Your task to perform on an android device: open app "Airtel Thanks" (install if not already installed) and go to login screen Image 0: 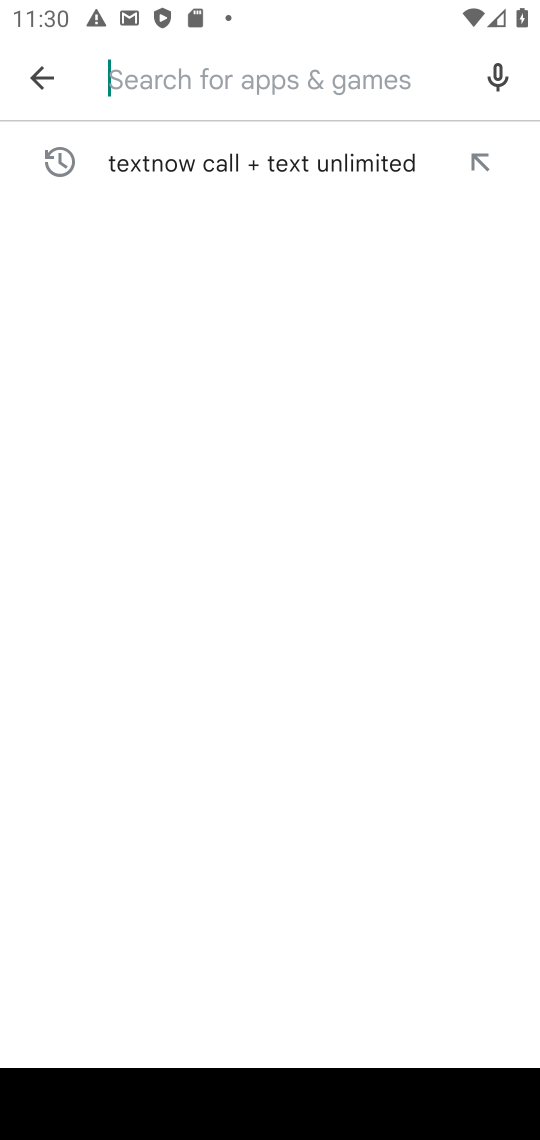
Step 0: type ""
Your task to perform on an android device: open app "Airtel Thanks" (install if not already installed) and go to login screen Image 1: 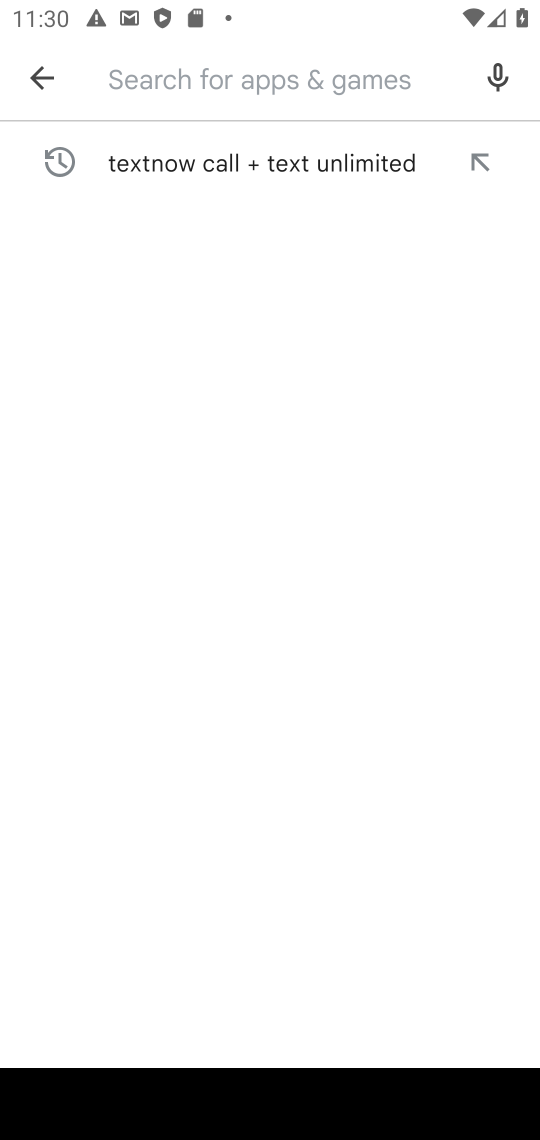
Step 1: click (207, 94)
Your task to perform on an android device: open app "Airtel Thanks" (install if not already installed) and go to login screen Image 2: 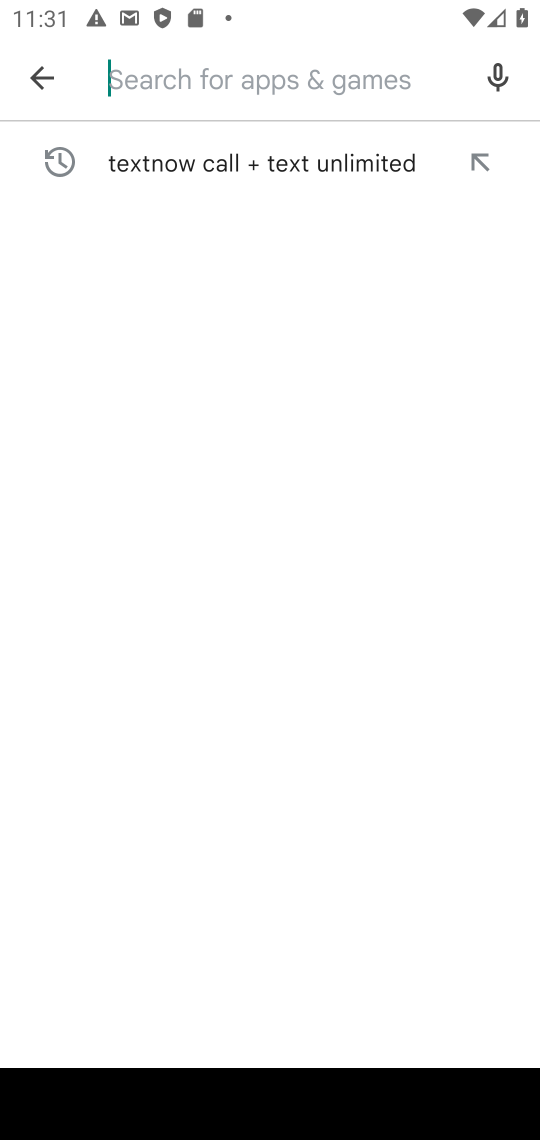
Step 2: type "Airtel Thanks"
Your task to perform on an android device: open app "Airtel Thanks" (install if not already installed) and go to login screen Image 3: 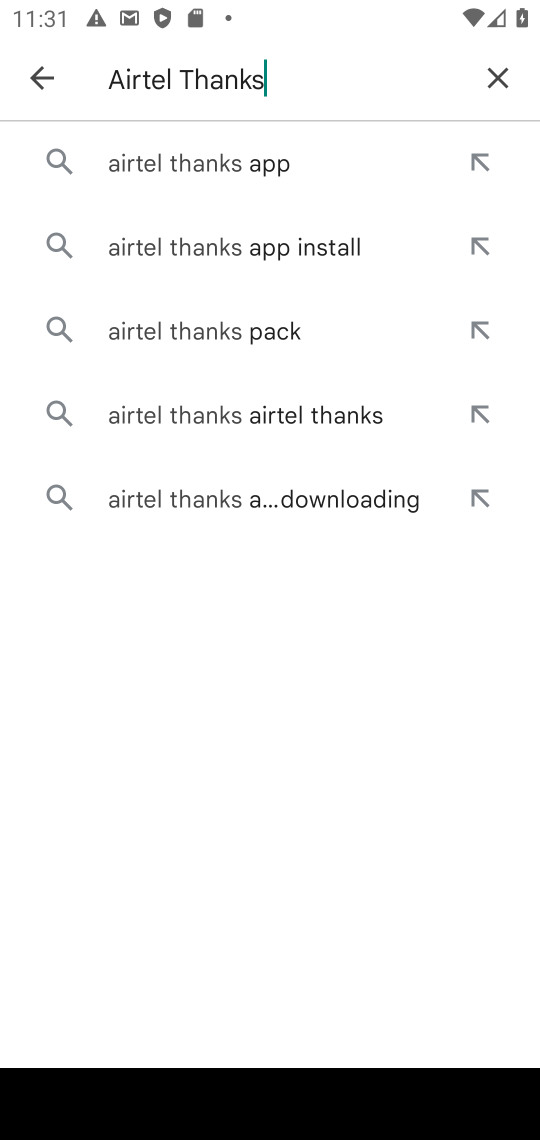
Step 3: click (213, 155)
Your task to perform on an android device: open app "Airtel Thanks" (install if not already installed) and go to login screen Image 4: 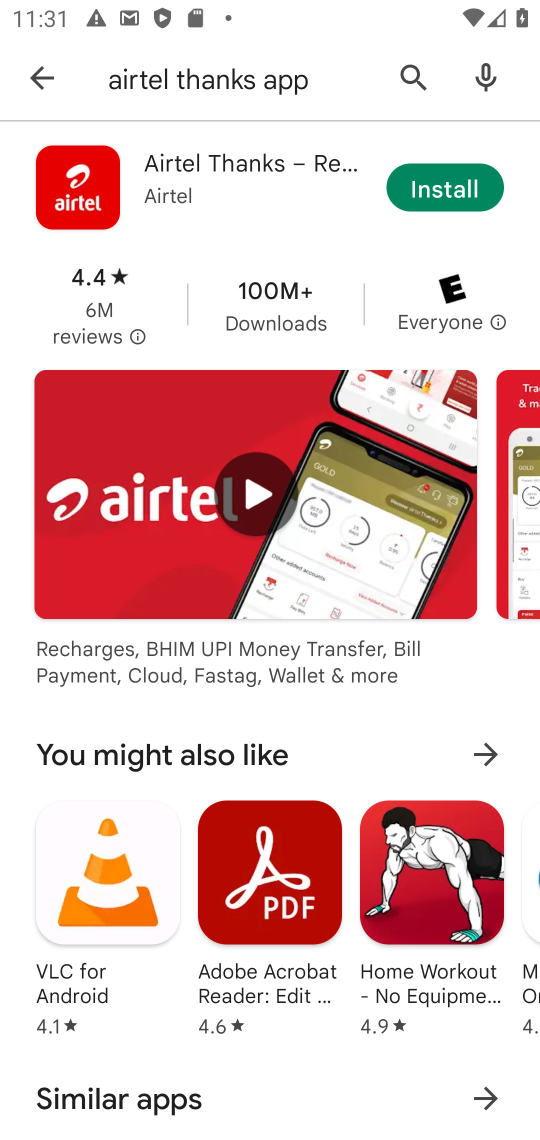
Step 4: click (446, 194)
Your task to perform on an android device: open app "Airtel Thanks" (install if not already installed) and go to login screen Image 5: 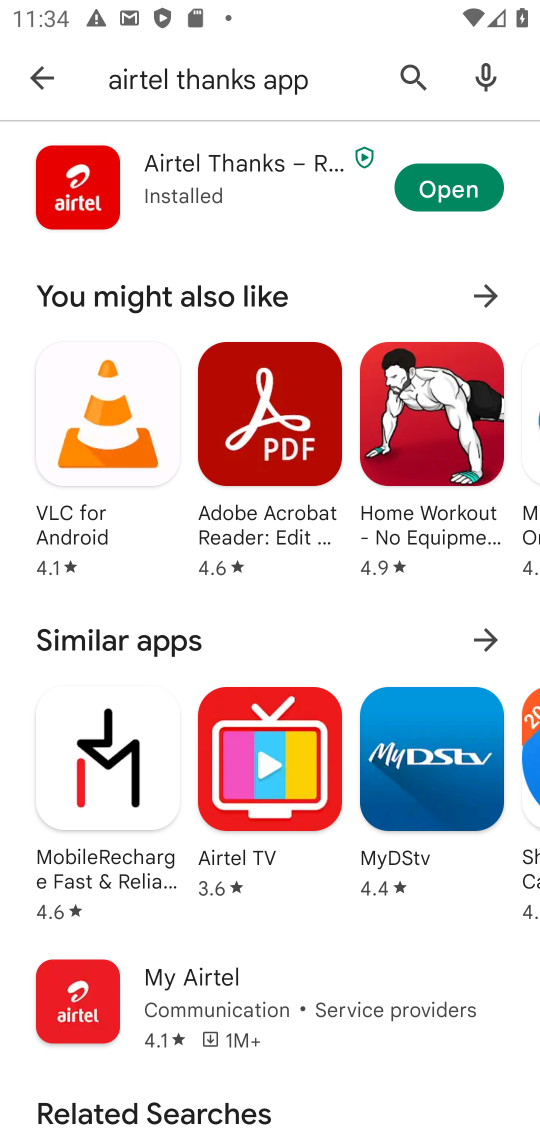
Step 5: click (461, 183)
Your task to perform on an android device: open app "Airtel Thanks" (install if not already installed) and go to login screen Image 6: 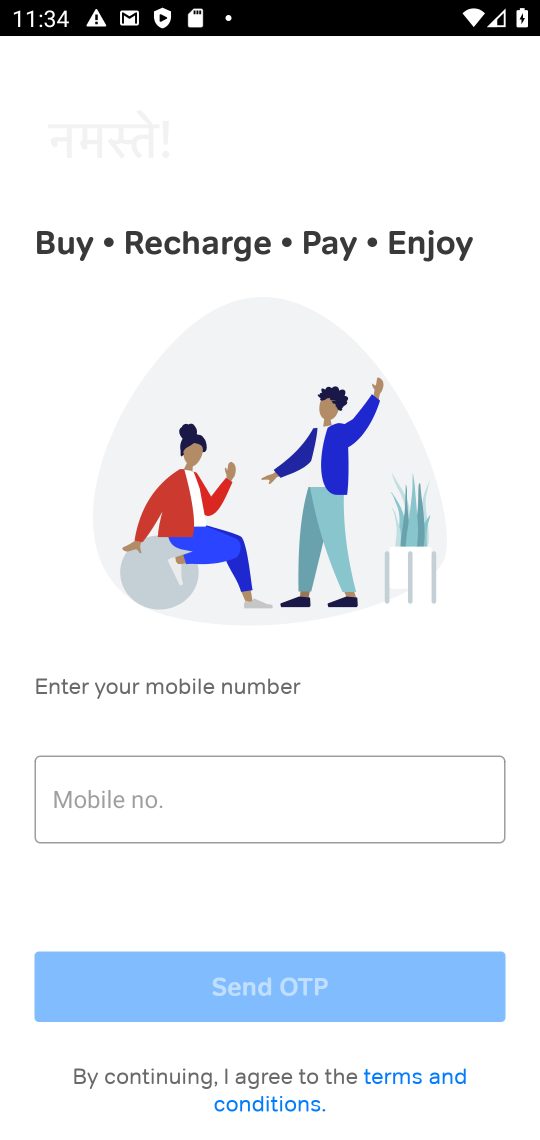
Step 6: task complete